Your task to perform on an android device: Go to wifi settings Image 0: 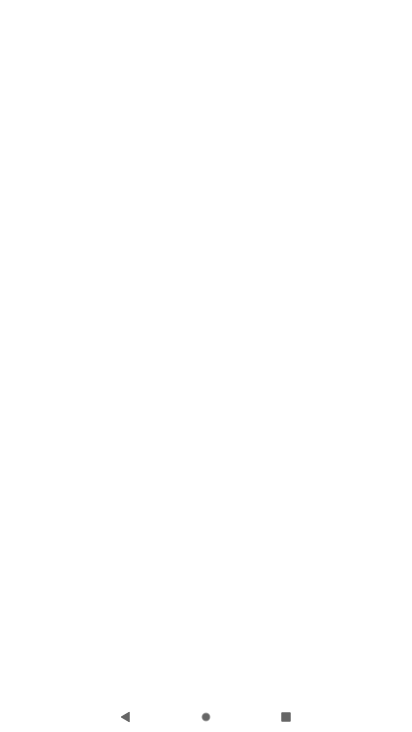
Step 0: press home button
Your task to perform on an android device: Go to wifi settings Image 1: 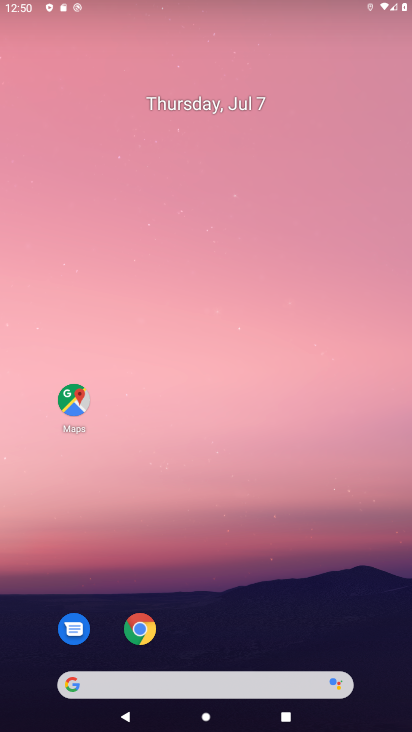
Step 1: drag from (220, 633) to (255, 23)
Your task to perform on an android device: Go to wifi settings Image 2: 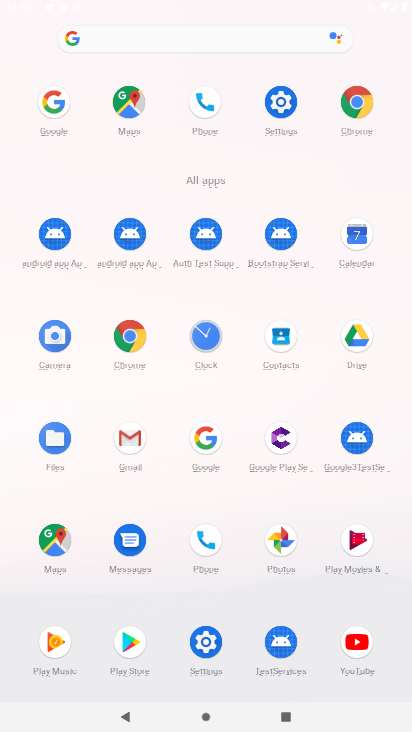
Step 2: click (279, 108)
Your task to perform on an android device: Go to wifi settings Image 3: 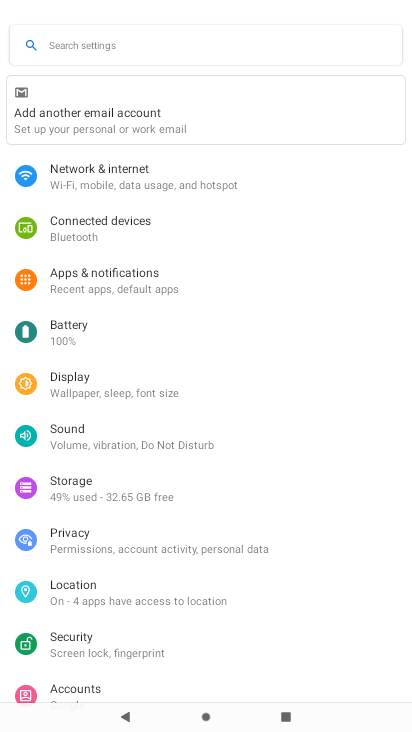
Step 3: click (120, 169)
Your task to perform on an android device: Go to wifi settings Image 4: 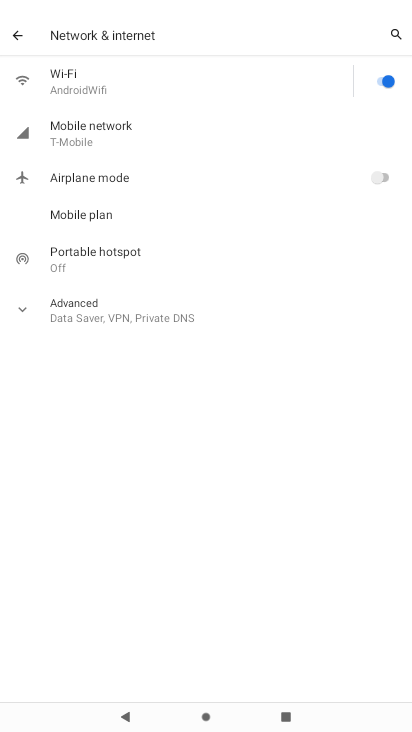
Step 4: click (135, 87)
Your task to perform on an android device: Go to wifi settings Image 5: 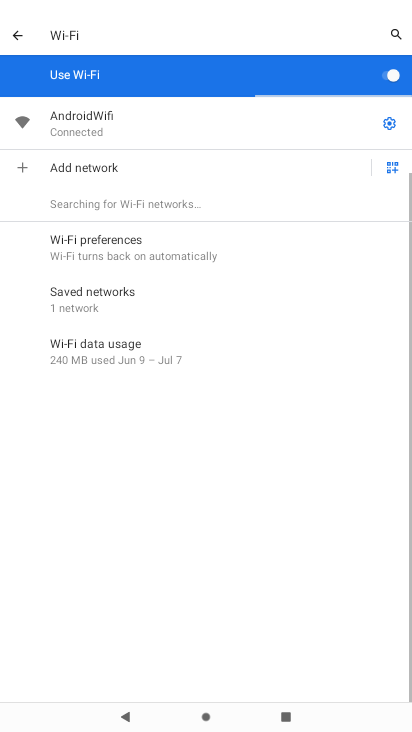
Step 5: click (391, 121)
Your task to perform on an android device: Go to wifi settings Image 6: 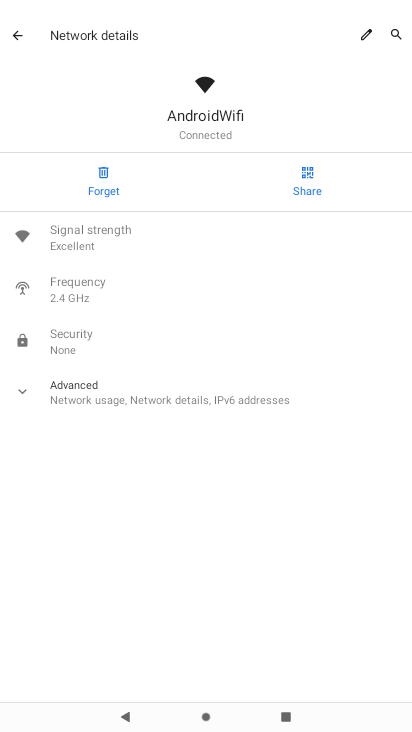
Step 6: task complete